Your task to perform on an android device: check battery use Image 0: 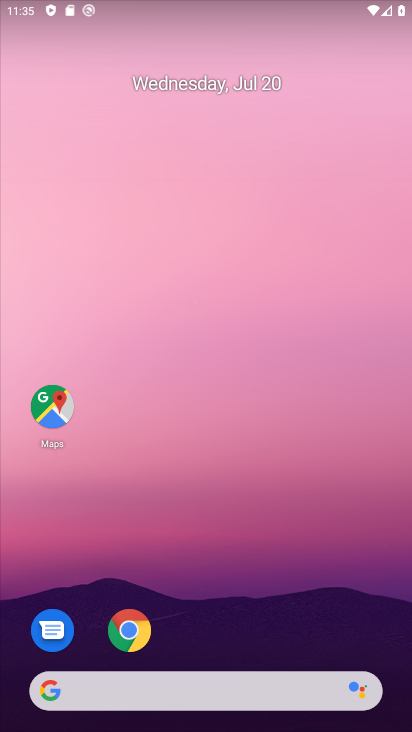
Step 0: drag from (203, 575) to (203, 314)
Your task to perform on an android device: check battery use Image 1: 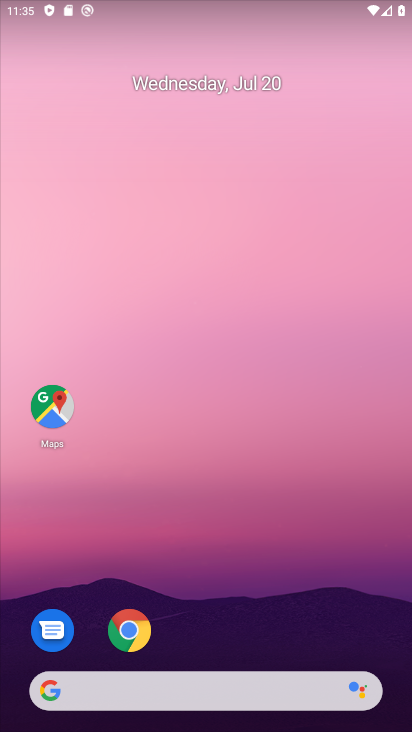
Step 1: drag from (153, 647) to (174, 283)
Your task to perform on an android device: check battery use Image 2: 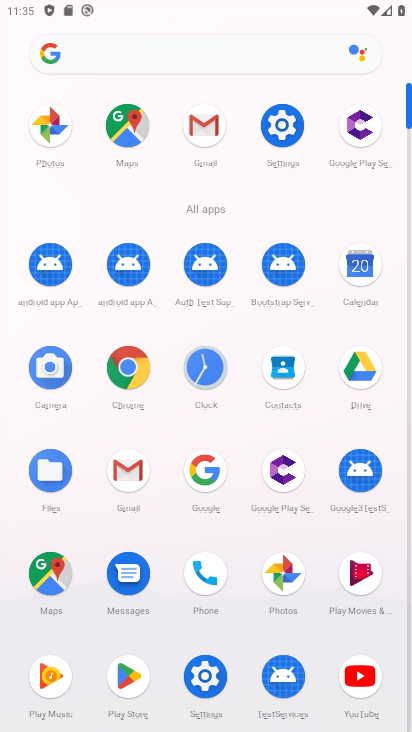
Step 2: click (289, 123)
Your task to perform on an android device: check battery use Image 3: 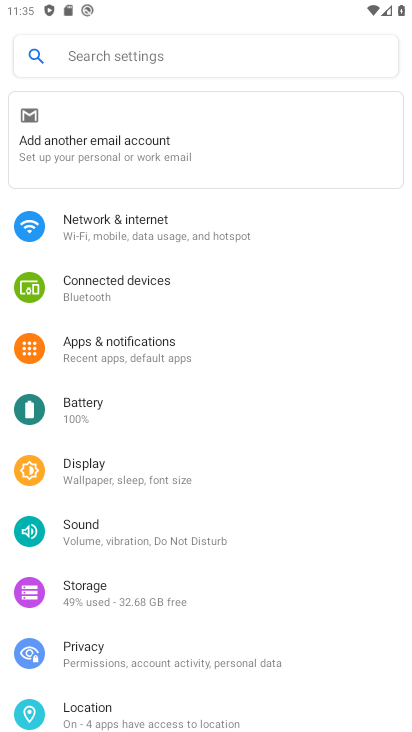
Step 3: click (117, 412)
Your task to perform on an android device: check battery use Image 4: 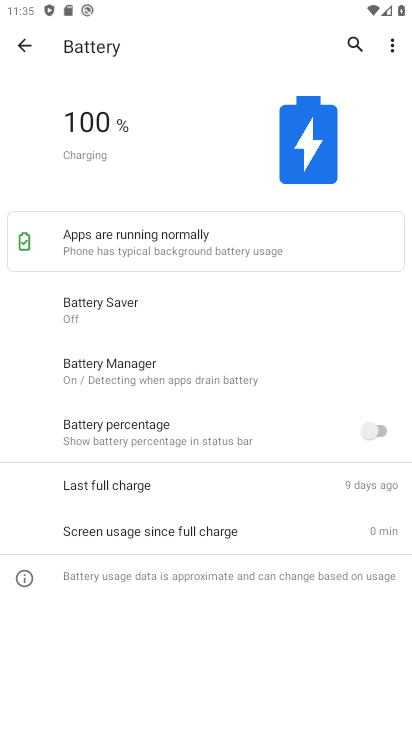
Step 4: drag from (394, 44) to (316, 44)
Your task to perform on an android device: check battery use Image 5: 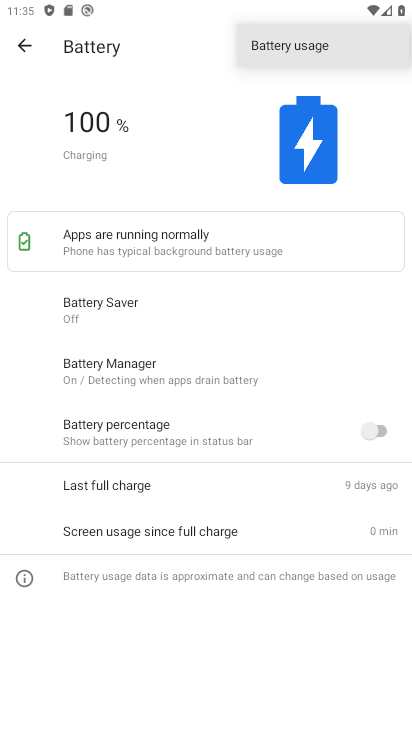
Step 5: click (316, 44)
Your task to perform on an android device: check battery use Image 6: 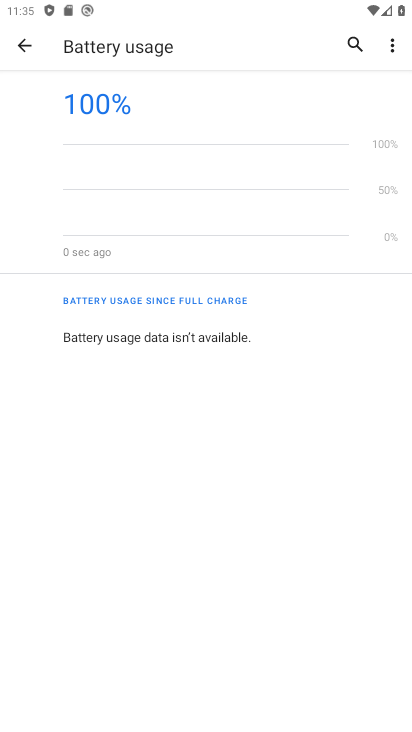
Step 6: task complete